Your task to perform on an android device: open wifi settings Image 0: 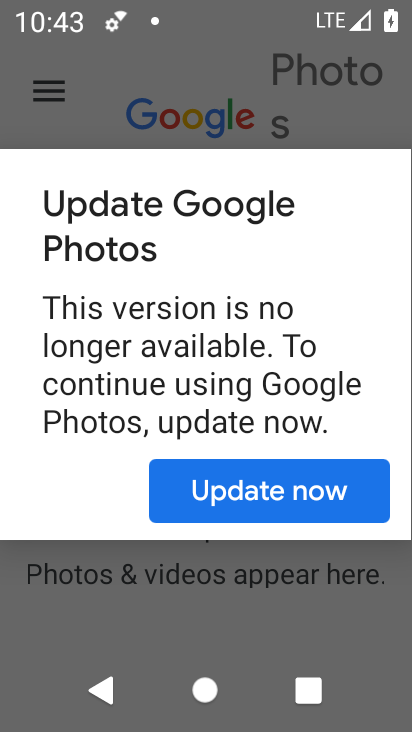
Step 0: press home button
Your task to perform on an android device: open wifi settings Image 1: 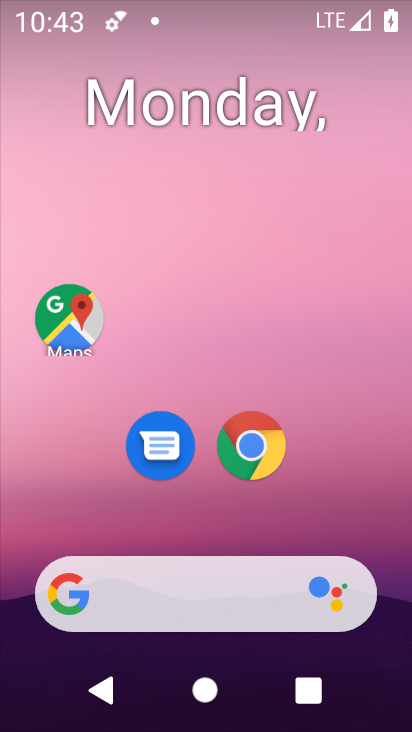
Step 1: drag from (232, 551) to (233, 444)
Your task to perform on an android device: open wifi settings Image 2: 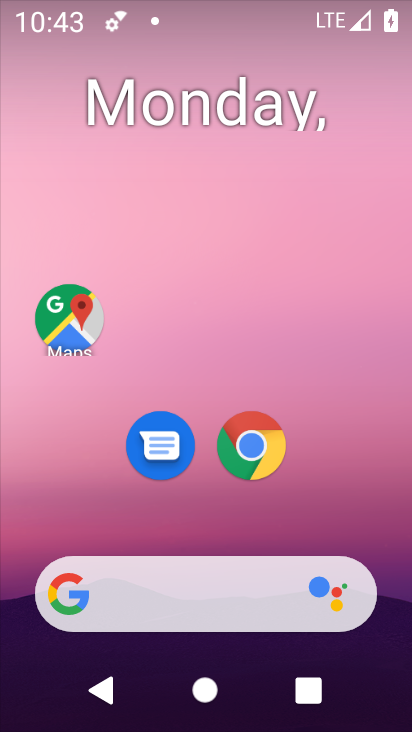
Step 2: drag from (199, 531) to (223, 144)
Your task to perform on an android device: open wifi settings Image 3: 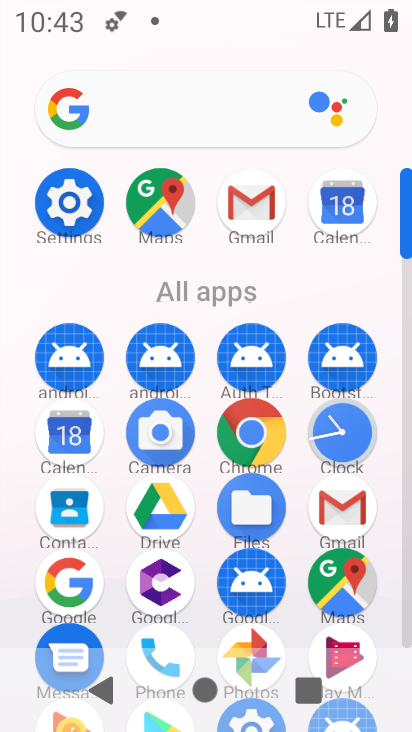
Step 3: click (63, 187)
Your task to perform on an android device: open wifi settings Image 4: 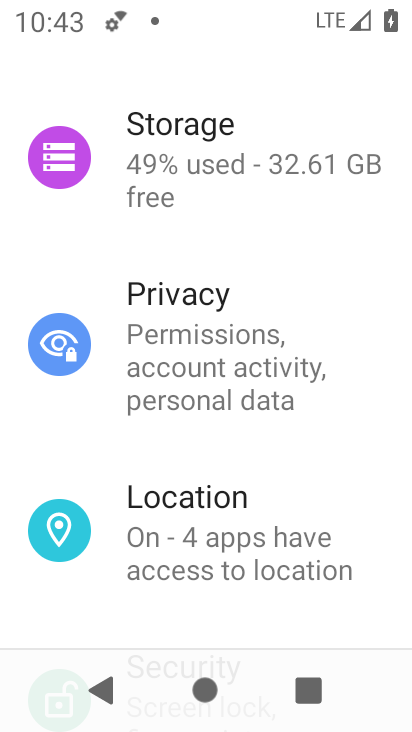
Step 4: drag from (287, 235) to (266, 652)
Your task to perform on an android device: open wifi settings Image 5: 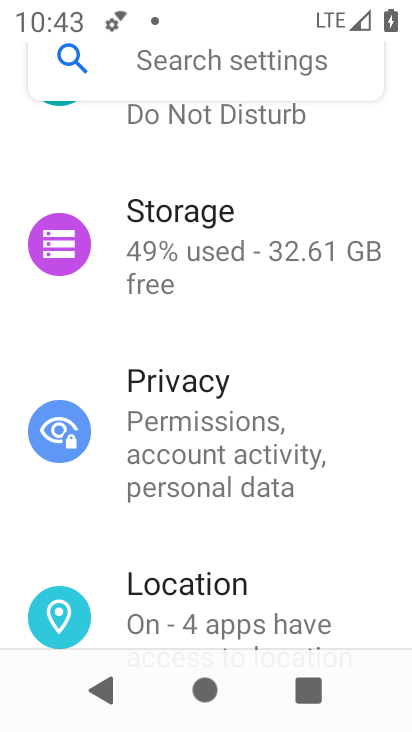
Step 5: drag from (242, 136) to (270, 689)
Your task to perform on an android device: open wifi settings Image 6: 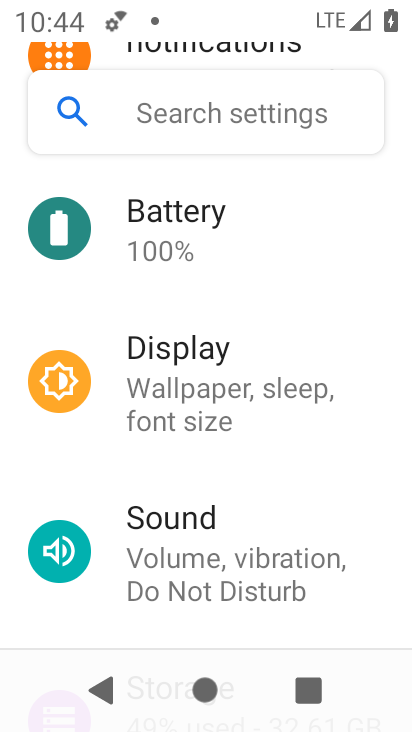
Step 6: drag from (254, 198) to (219, 565)
Your task to perform on an android device: open wifi settings Image 7: 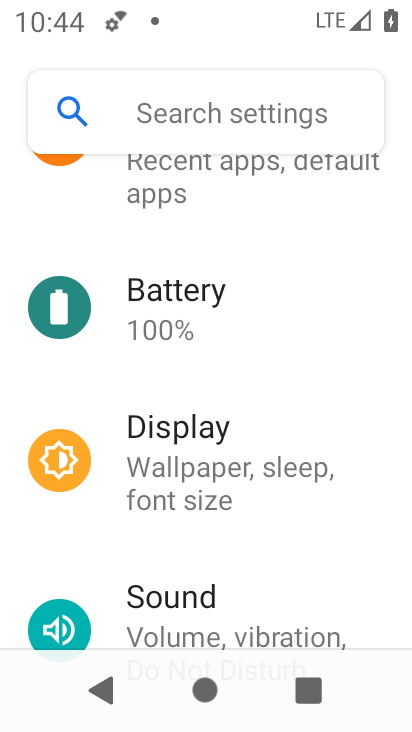
Step 7: drag from (265, 192) to (257, 575)
Your task to perform on an android device: open wifi settings Image 8: 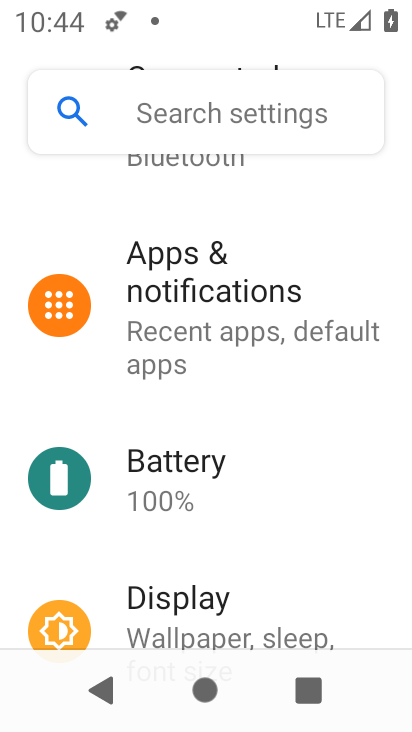
Step 8: drag from (237, 587) to (262, 209)
Your task to perform on an android device: open wifi settings Image 9: 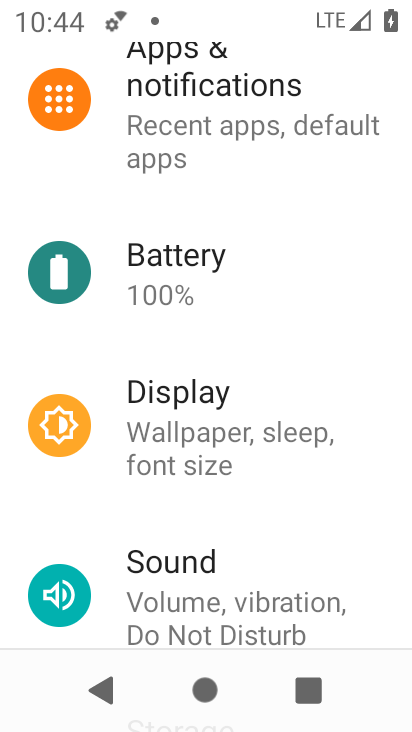
Step 9: drag from (269, 138) to (230, 445)
Your task to perform on an android device: open wifi settings Image 10: 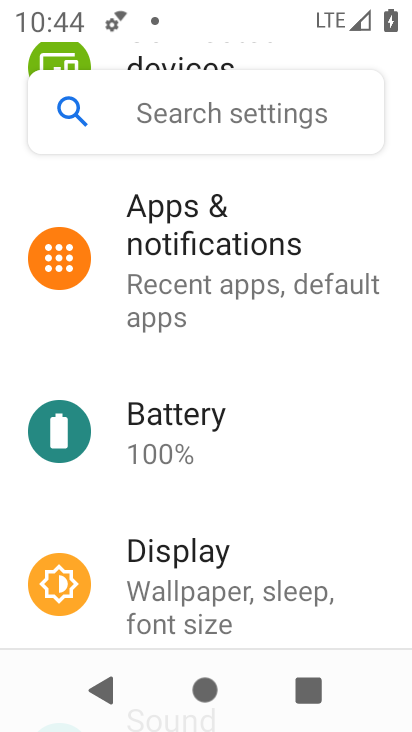
Step 10: drag from (271, 182) to (296, 606)
Your task to perform on an android device: open wifi settings Image 11: 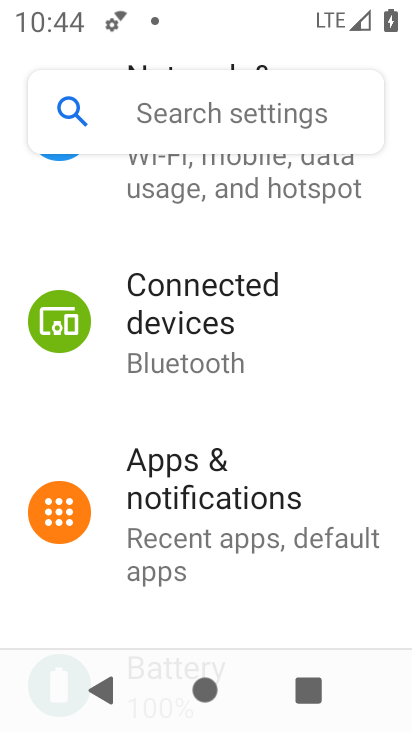
Step 11: drag from (297, 249) to (277, 617)
Your task to perform on an android device: open wifi settings Image 12: 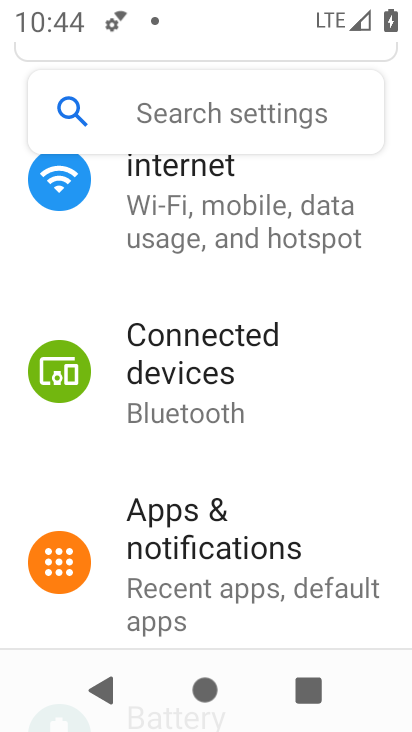
Step 12: click (192, 213)
Your task to perform on an android device: open wifi settings Image 13: 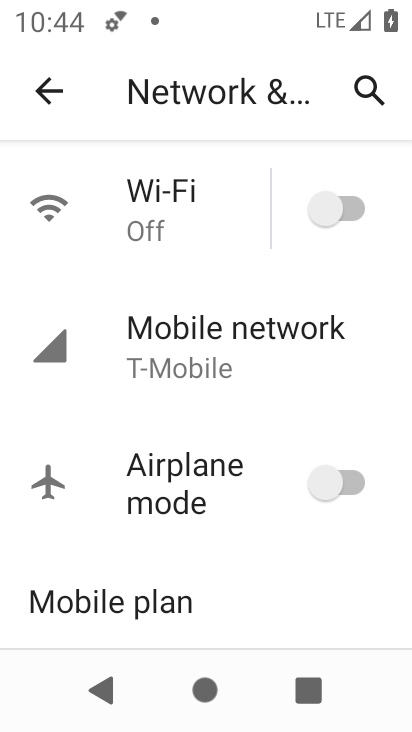
Step 13: click (226, 190)
Your task to perform on an android device: open wifi settings Image 14: 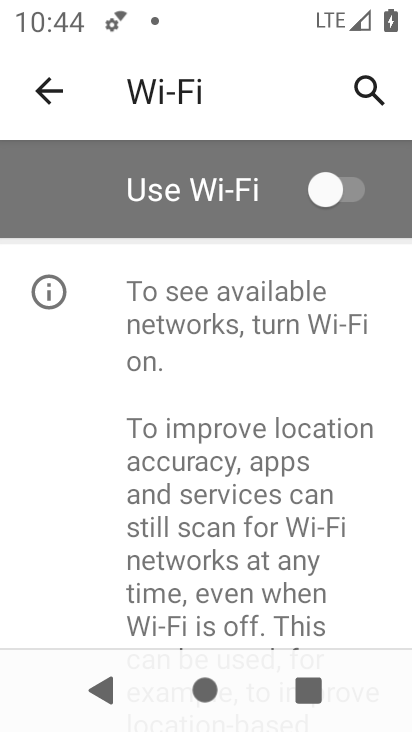
Step 14: click (351, 205)
Your task to perform on an android device: open wifi settings Image 15: 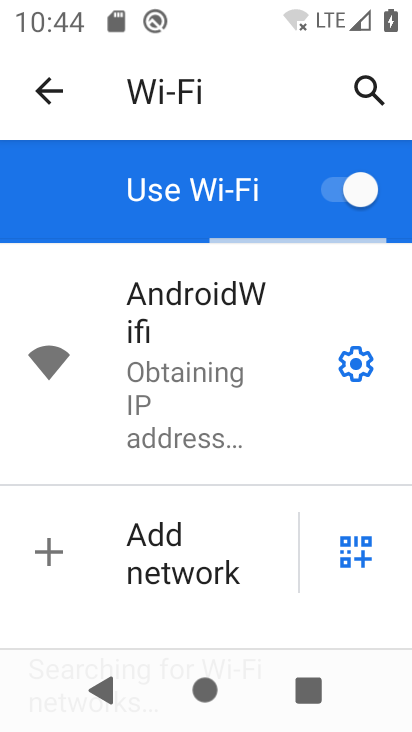
Step 15: click (132, 437)
Your task to perform on an android device: open wifi settings Image 16: 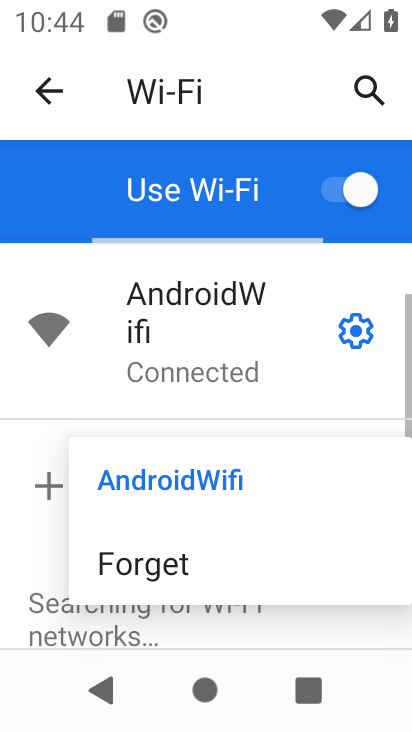
Step 16: click (363, 353)
Your task to perform on an android device: open wifi settings Image 17: 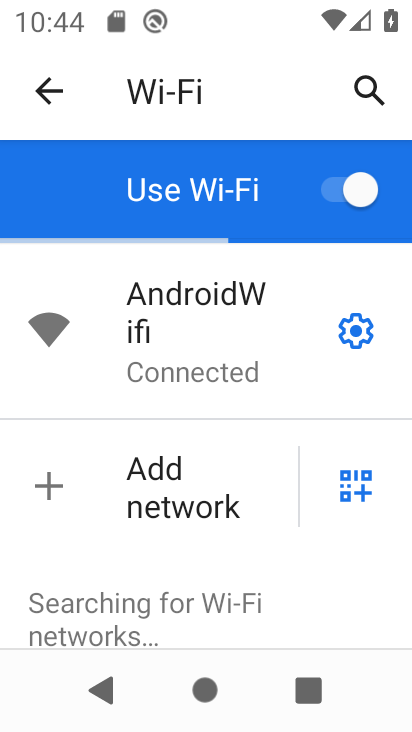
Step 17: click (351, 329)
Your task to perform on an android device: open wifi settings Image 18: 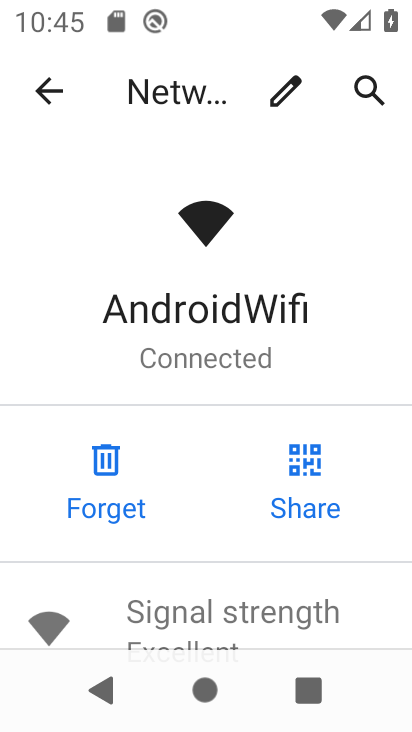
Step 18: task complete